Your task to perform on an android device: change the clock display to show seconds Image 0: 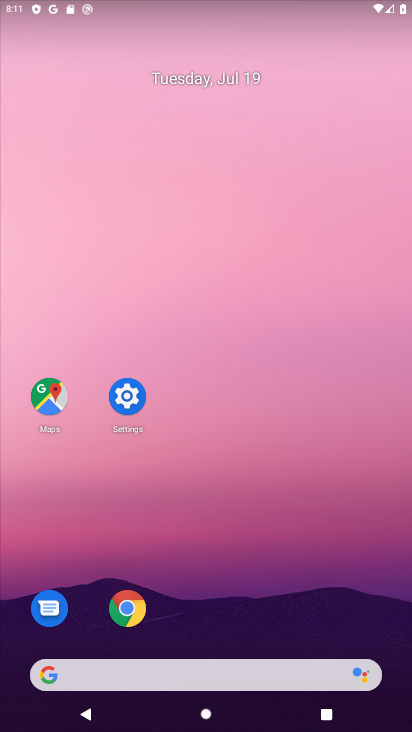
Step 0: drag from (381, 698) to (233, 89)
Your task to perform on an android device: change the clock display to show seconds Image 1: 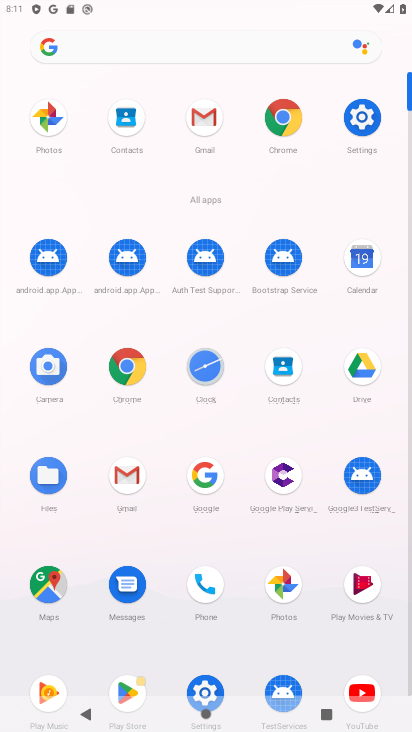
Step 1: drag from (201, 370) to (180, 424)
Your task to perform on an android device: change the clock display to show seconds Image 2: 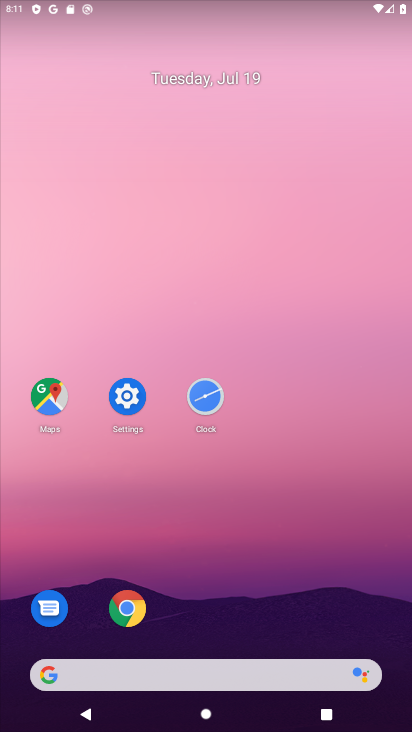
Step 2: click (207, 386)
Your task to perform on an android device: change the clock display to show seconds Image 3: 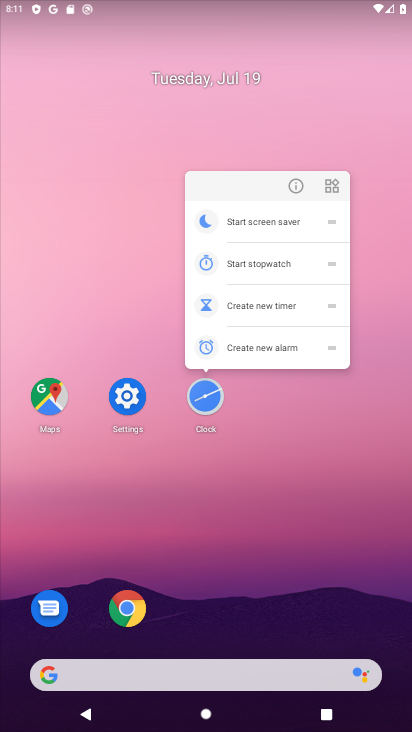
Step 3: click (202, 403)
Your task to perform on an android device: change the clock display to show seconds Image 4: 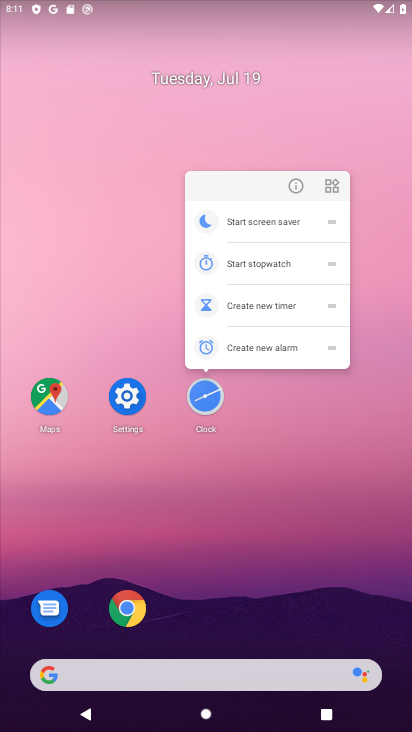
Step 4: click (202, 383)
Your task to perform on an android device: change the clock display to show seconds Image 5: 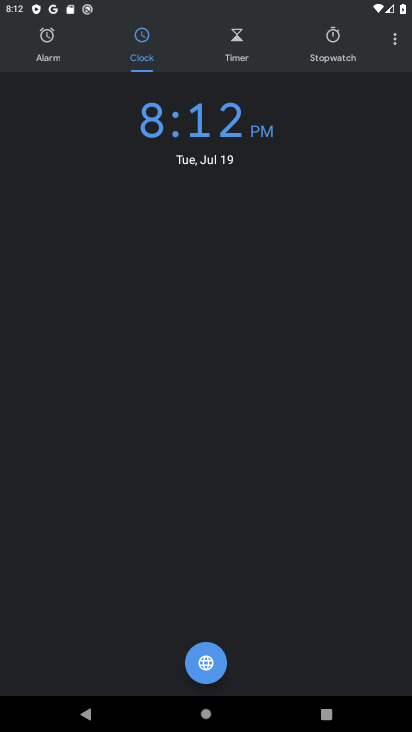
Step 5: click (393, 37)
Your task to perform on an android device: change the clock display to show seconds Image 6: 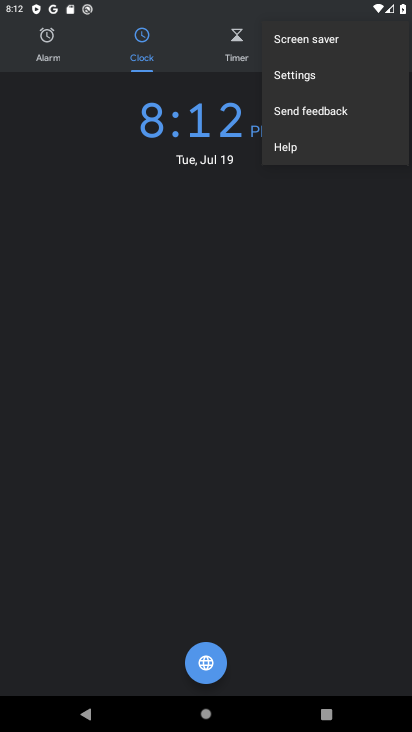
Step 6: click (303, 72)
Your task to perform on an android device: change the clock display to show seconds Image 7: 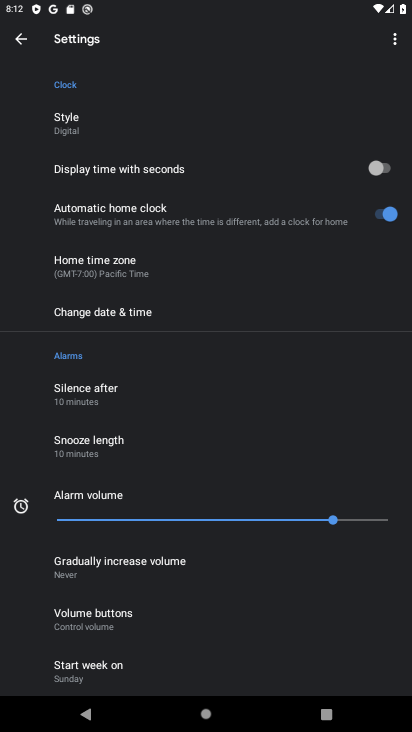
Step 7: click (77, 113)
Your task to perform on an android device: change the clock display to show seconds Image 8: 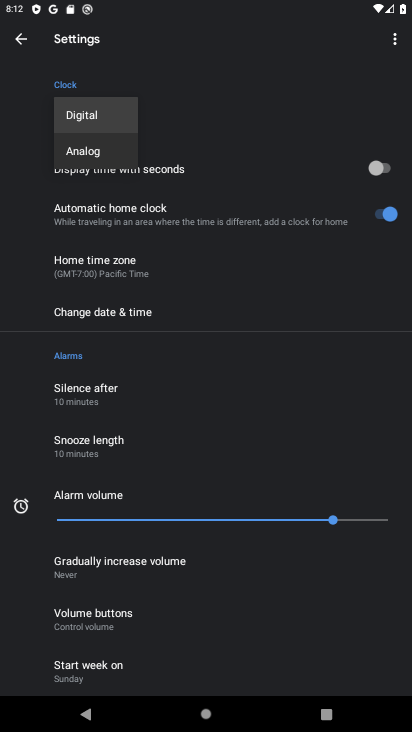
Step 8: click (370, 171)
Your task to perform on an android device: change the clock display to show seconds Image 9: 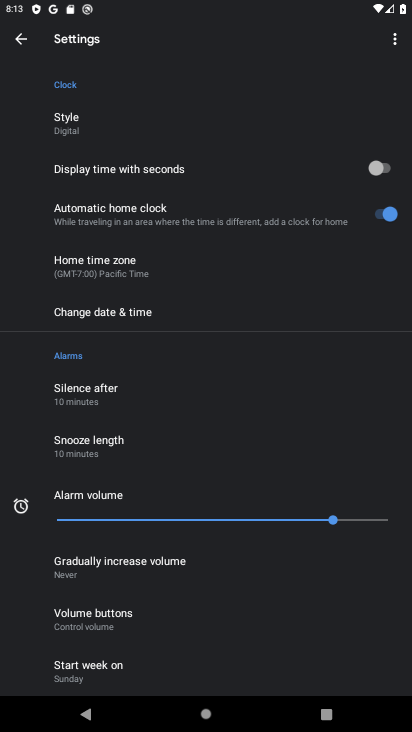
Step 9: click (384, 170)
Your task to perform on an android device: change the clock display to show seconds Image 10: 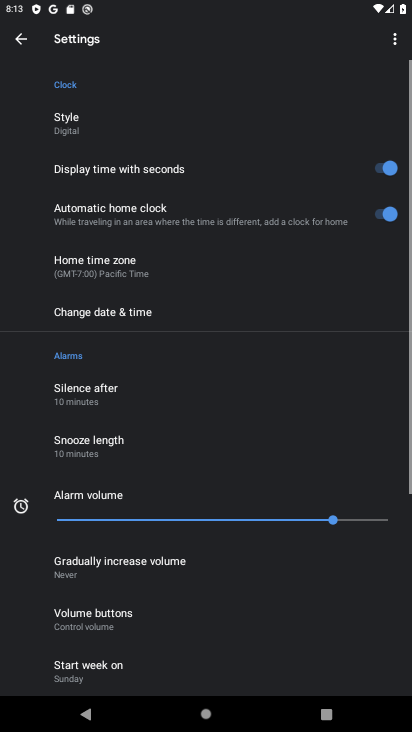
Step 10: task complete